Your task to perform on an android device: Search for sushi restaurants on Maps Image 0: 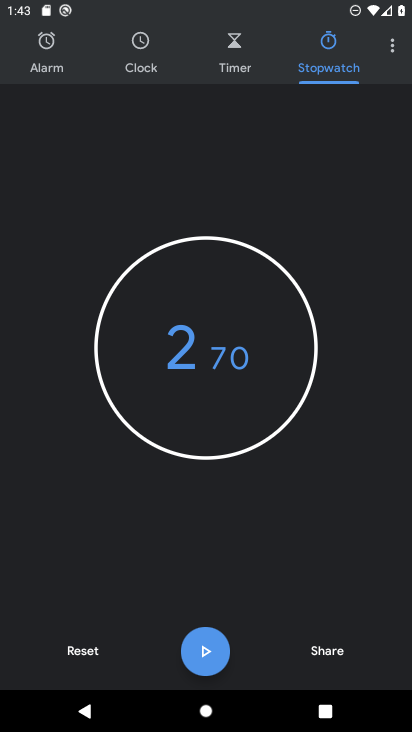
Step 0: press home button
Your task to perform on an android device: Search for sushi restaurants on Maps Image 1: 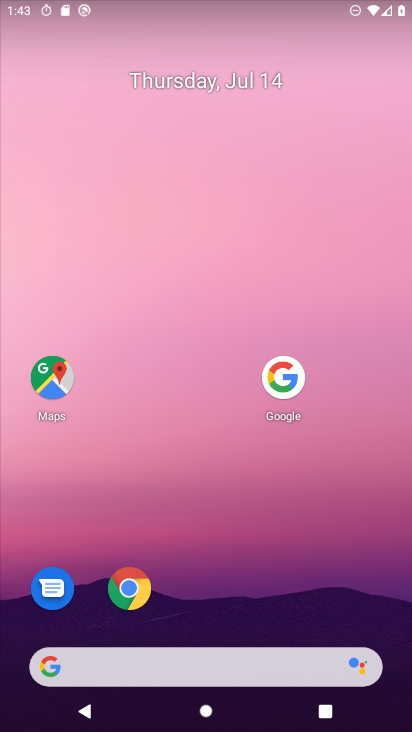
Step 1: click (50, 387)
Your task to perform on an android device: Search for sushi restaurants on Maps Image 2: 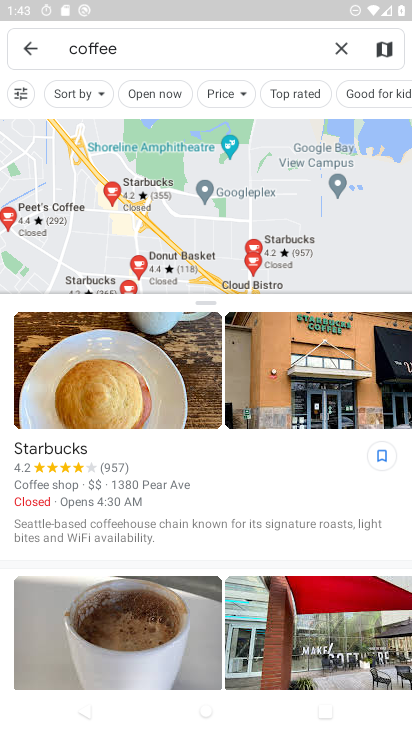
Step 2: click (342, 47)
Your task to perform on an android device: Search for sushi restaurants on Maps Image 3: 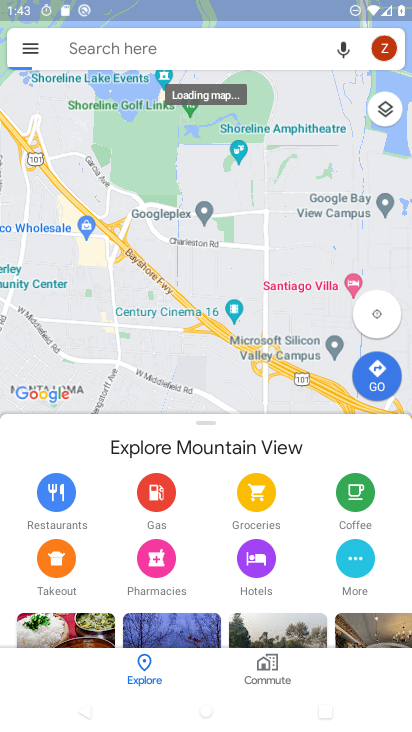
Step 3: type " sushi restaurants"
Your task to perform on an android device: Search for sushi restaurants on Maps Image 4: 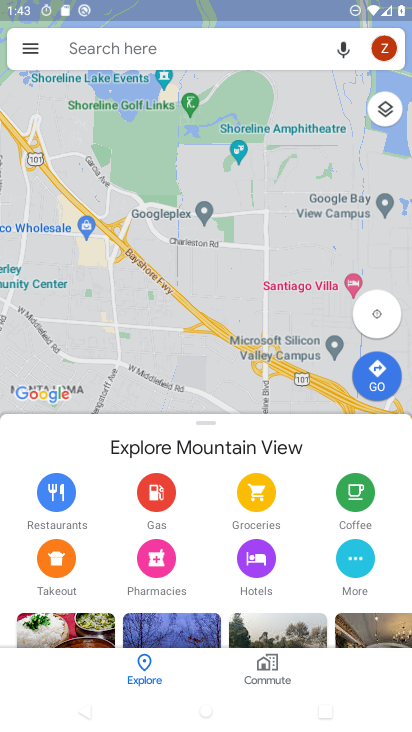
Step 4: click (128, 48)
Your task to perform on an android device: Search for sushi restaurants on Maps Image 5: 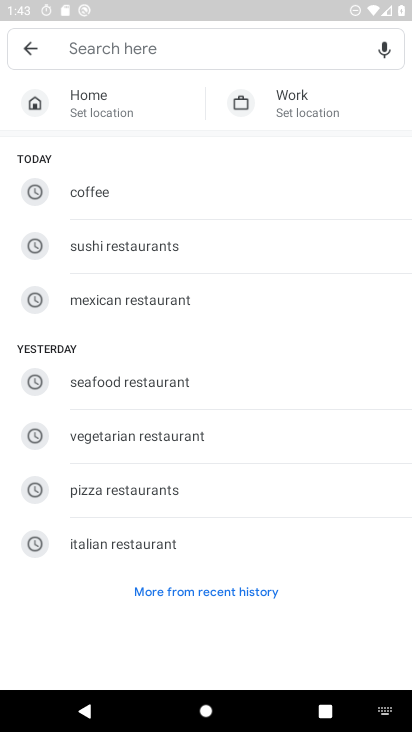
Step 5: type " sushi restaurants"
Your task to perform on an android device: Search for sushi restaurants on Maps Image 6: 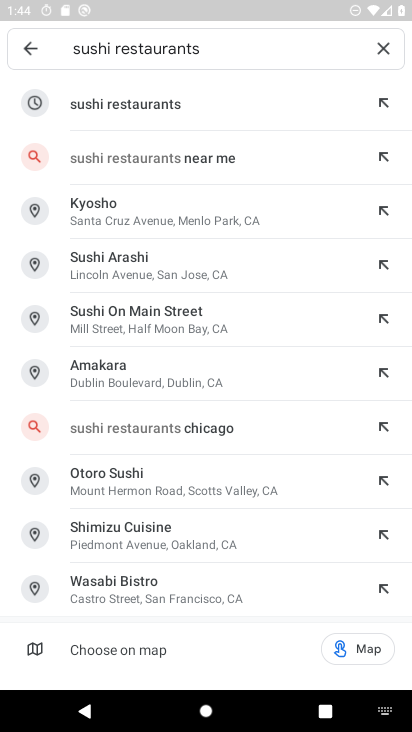
Step 6: click (169, 104)
Your task to perform on an android device: Search for sushi restaurants on Maps Image 7: 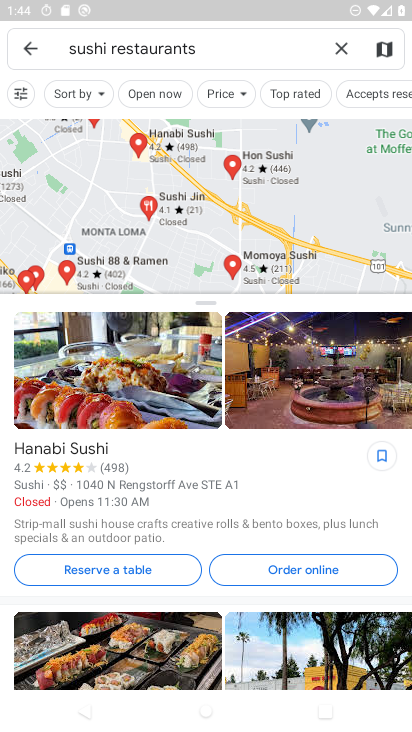
Step 7: task complete